Your task to perform on an android device: allow notifications from all sites in the chrome app Image 0: 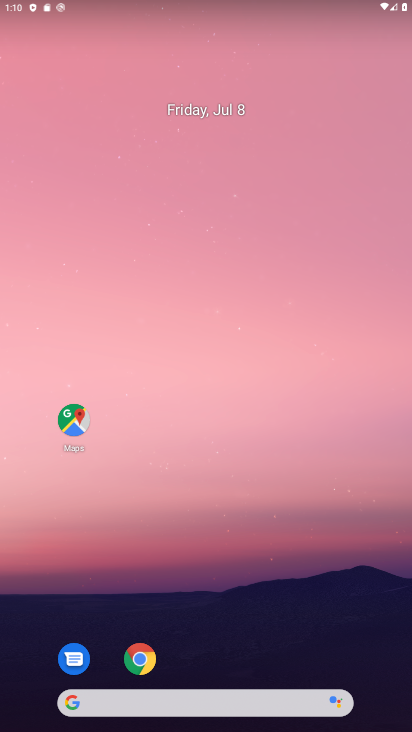
Step 0: click (146, 644)
Your task to perform on an android device: allow notifications from all sites in the chrome app Image 1: 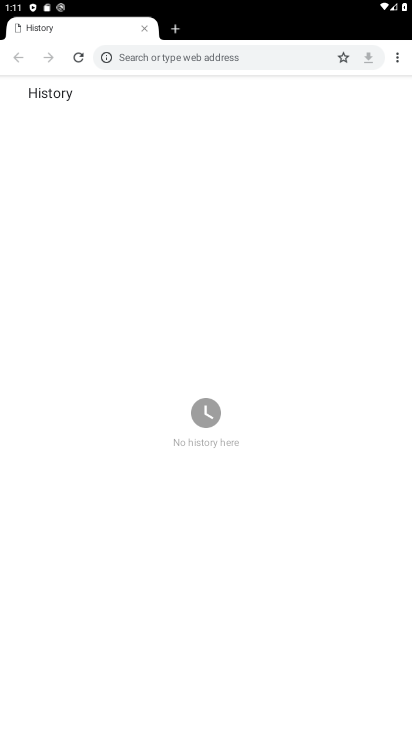
Step 1: click (391, 54)
Your task to perform on an android device: allow notifications from all sites in the chrome app Image 2: 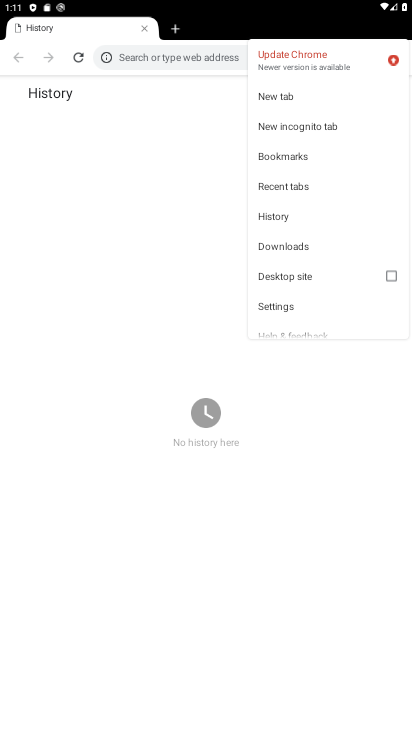
Step 2: click (310, 300)
Your task to perform on an android device: allow notifications from all sites in the chrome app Image 3: 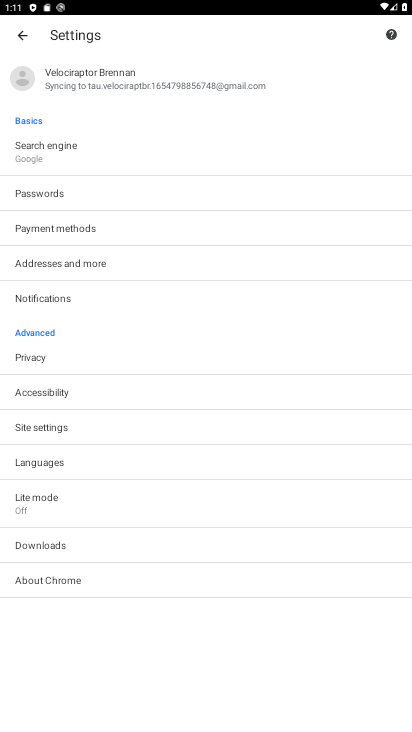
Step 3: click (56, 300)
Your task to perform on an android device: allow notifications from all sites in the chrome app Image 4: 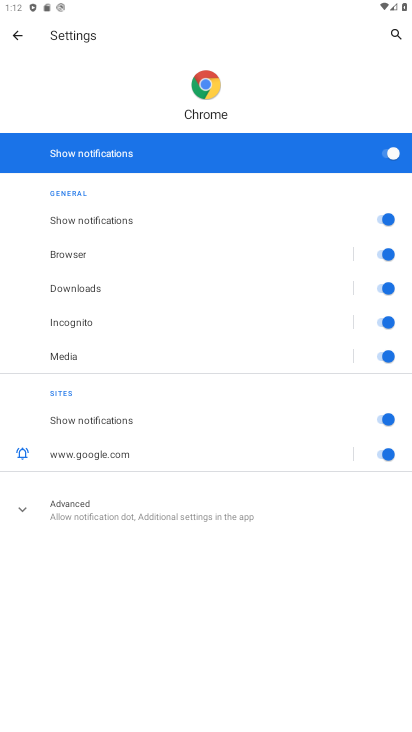
Step 4: task complete